Your task to perform on an android device: Go to wifi settings Image 0: 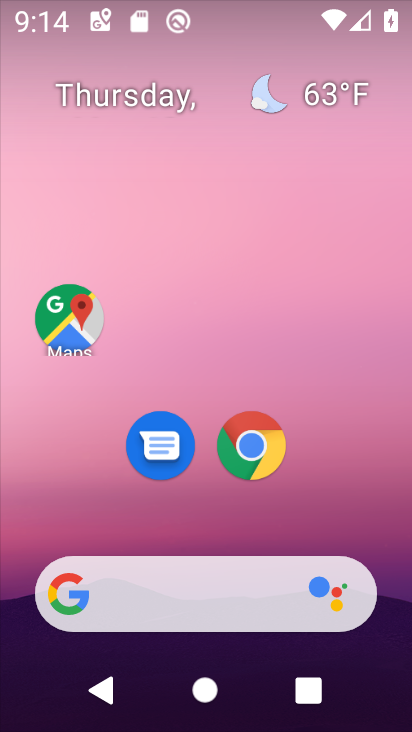
Step 0: drag from (188, 522) to (240, 255)
Your task to perform on an android device: Go to wifi settings Image 1: 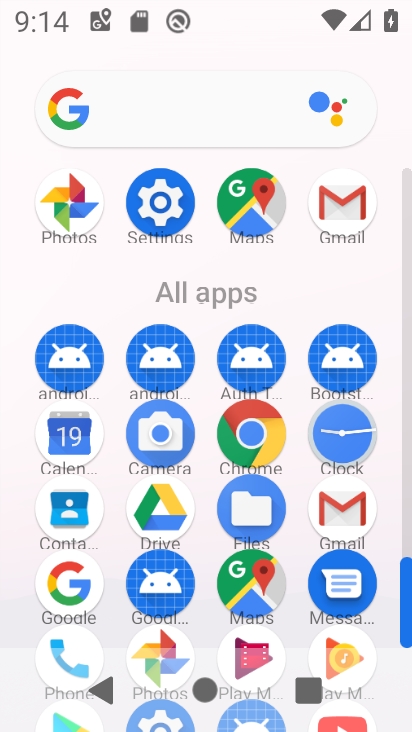
Step 1: click (179, 222)
Your task to perform on an android device: Go to wifi settings Image 2: 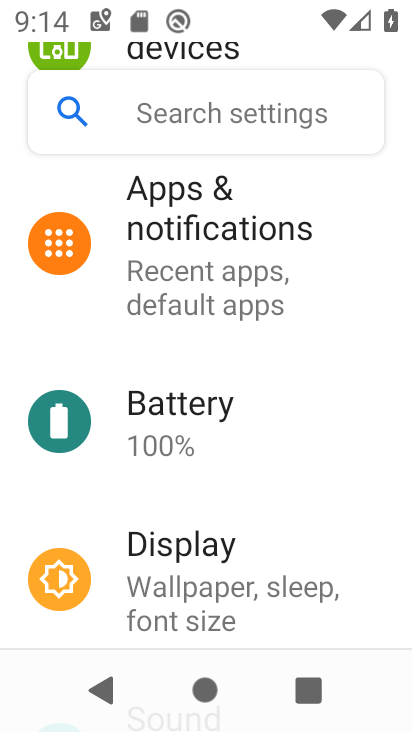
Step 2: drag from (218, 321) to (229, 695)
Your task to perform on an android device: Go to wifi settings Image 3: 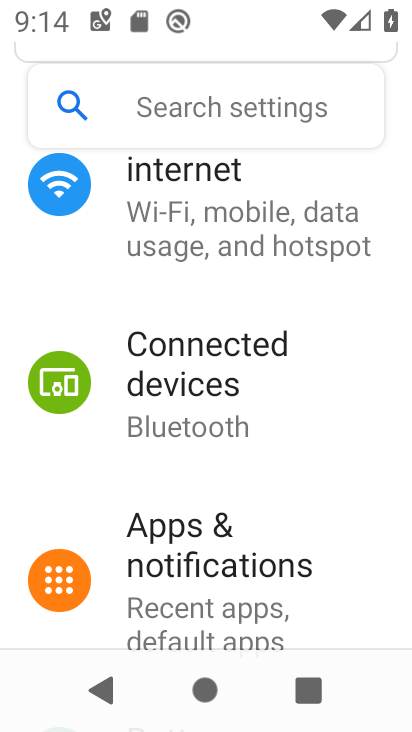
Step 3: drag from (247, 298) to (252, 661)
Your task to perform on an android device: Go to wifi settings Image 4: 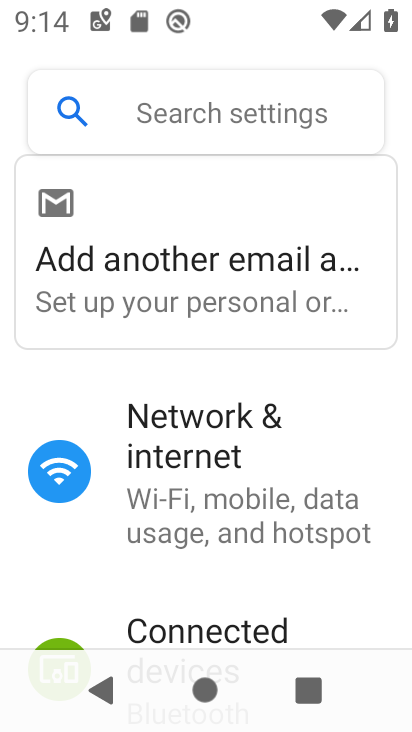
Step 4: click (231, 526)
Your task to perform on an android device: Go to wifi settings Image 5: 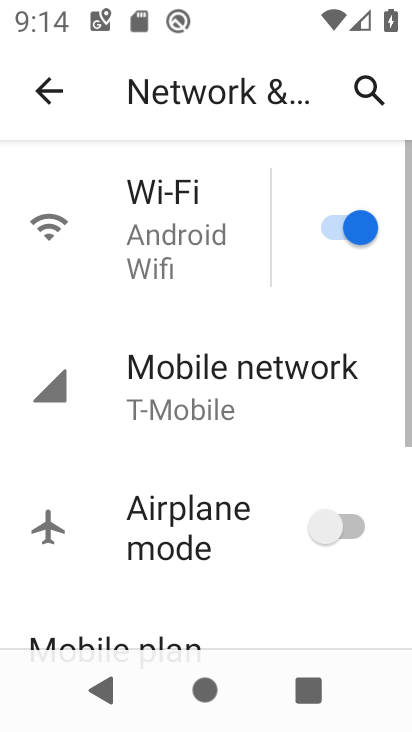
Step 5: click (147, 277)
Your task to perform on an android device: Go to wifi settings Image 6: 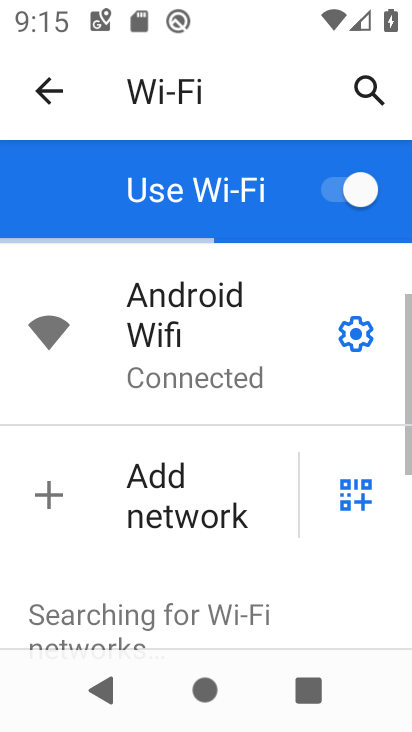
Step 6: task complete